Your task to perform on an android device: check storage Image 0: 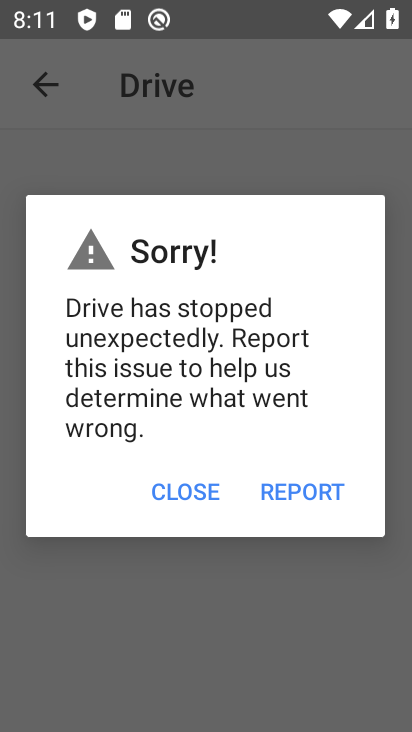
Step 0: press home button
Your task to perform on an android device: check storage Image 1: 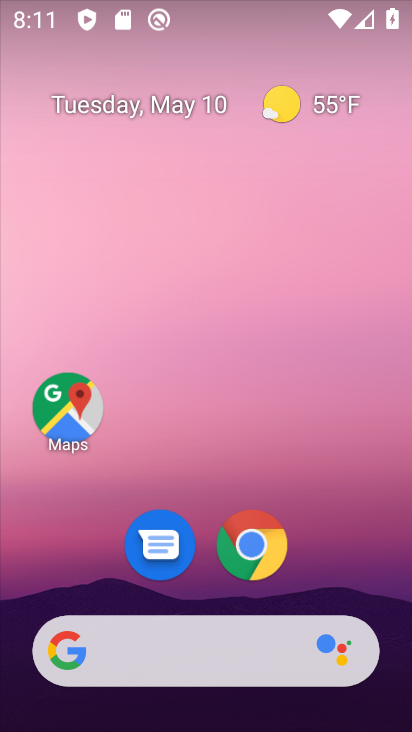
Step 1: drag from (205, 588) to (234, 300)
Your task to perform on an android device: check storage Image 2: 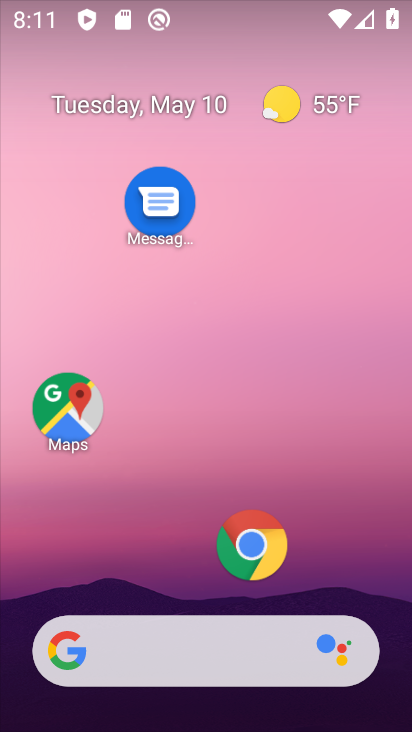
Step 2: click (214, 120)
Your task to perform on an android device: check storage Image 3: 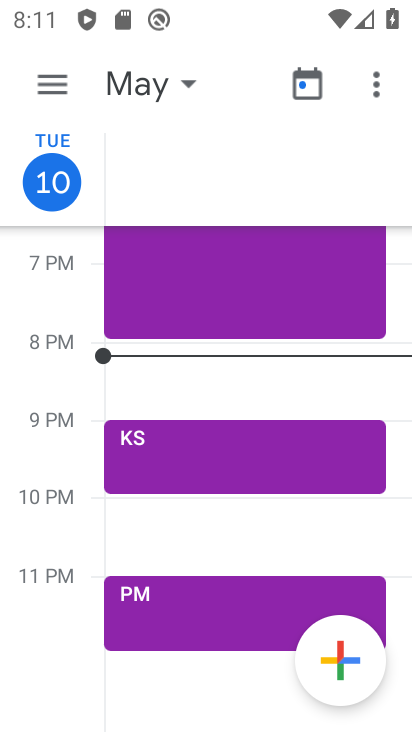
Step 3: press home button
Your task to perform on an android device: check storage Image 4: 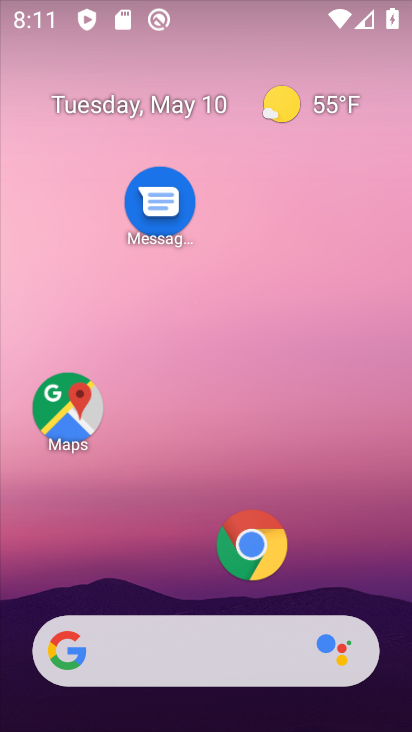
Step 4: drag from (191, 589) to (257, 141)
Your task to perform on an android device: check storage Image 5: 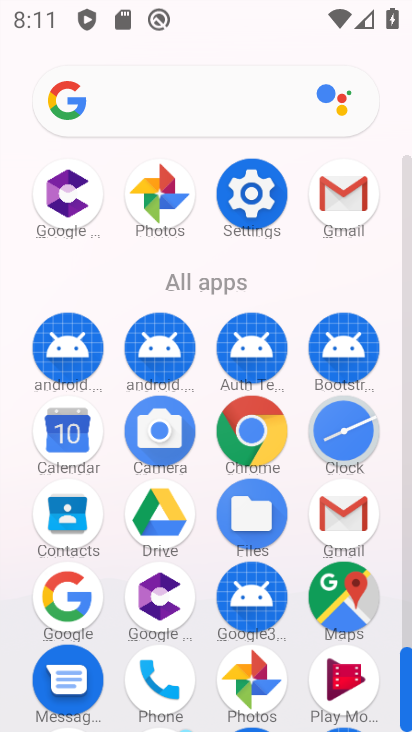
Step 5: click (238, 164)
Your task to perform on an android device: check storage Image 6: 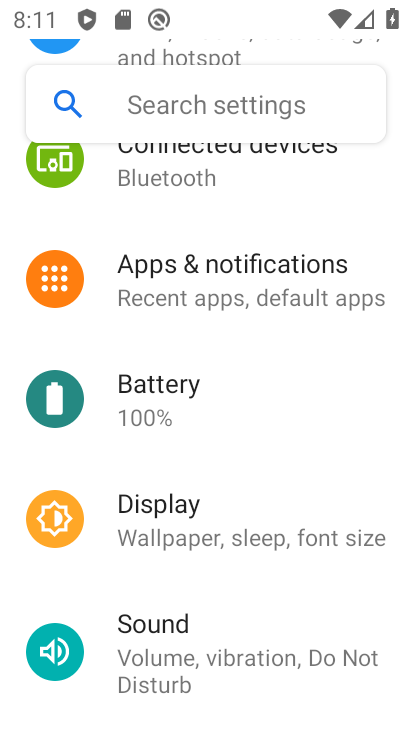
Step 6: drag from (221, 633) to (243, 310)
Your task to perform on an android device: check storage Image 7: 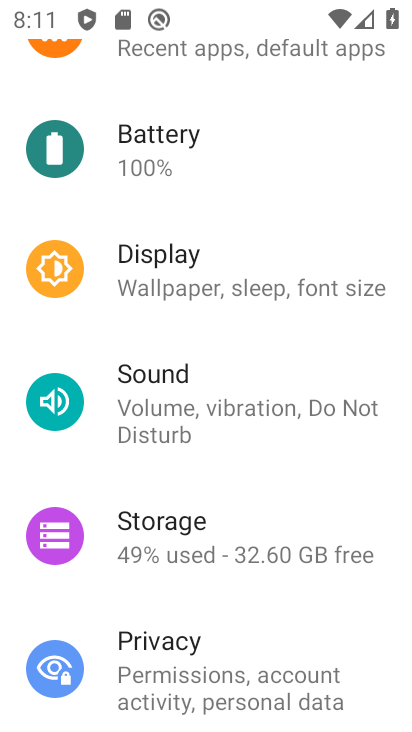
Step 7: click (194, 519)
Your task to perform on an android device: check storage Image 8: 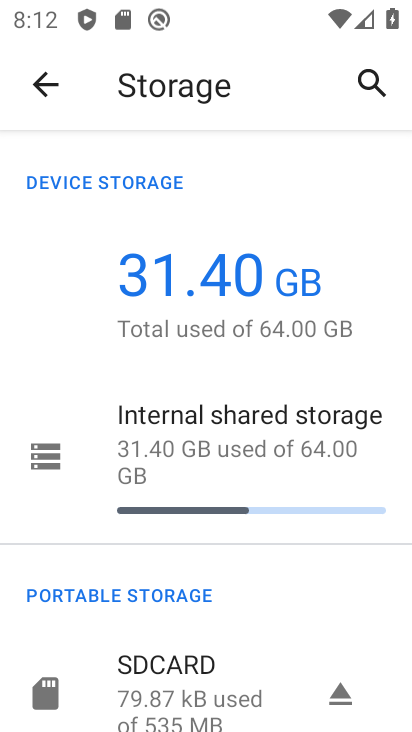
Step 8: task complete